Your task to perform on an android device: Search for Mexican restaurants on Maps Image 0: 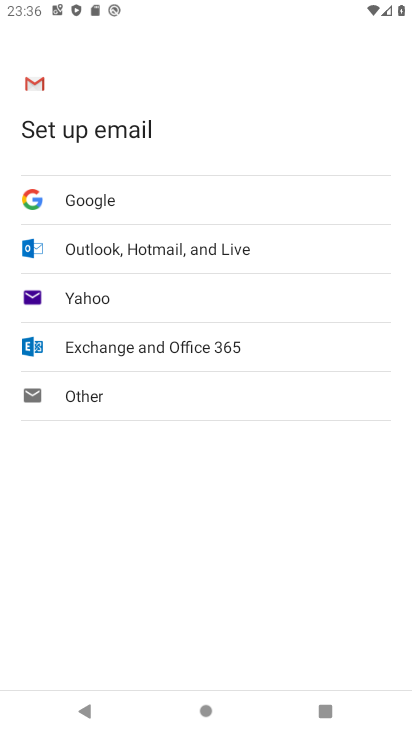
Step 0: press home button
Your task to perform on an android device: Search for Mexican restaurants on Maps Image 1: 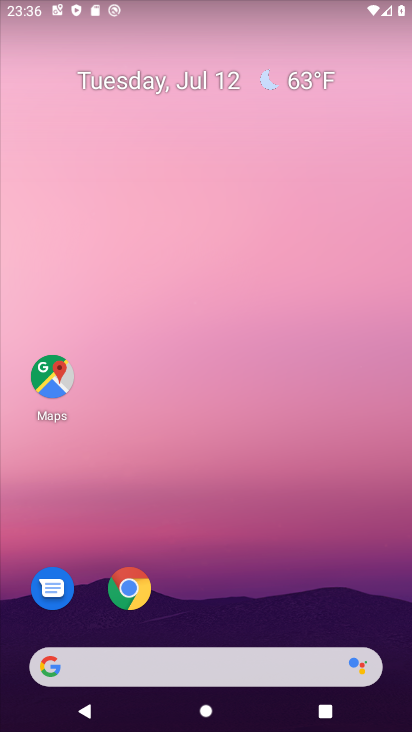
Step 1: click (52, 371)
Your task to perform on an android device: Search for Mexican restaurants on Maps Image 2: 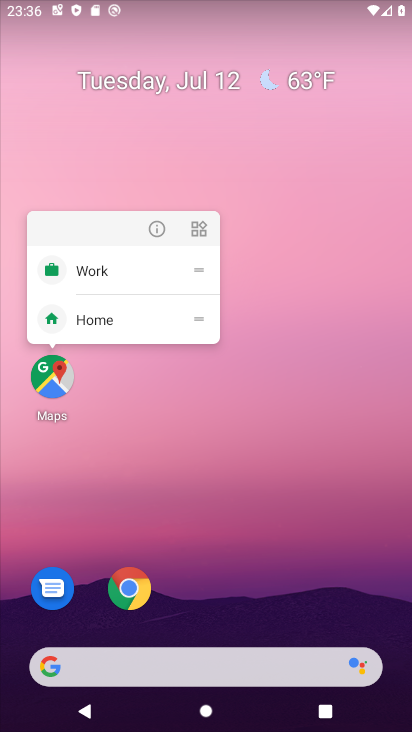
Step 2: click (52, 392)
Your task to perform on an android device: Search for Mexican restaurants on Maps Image 3: 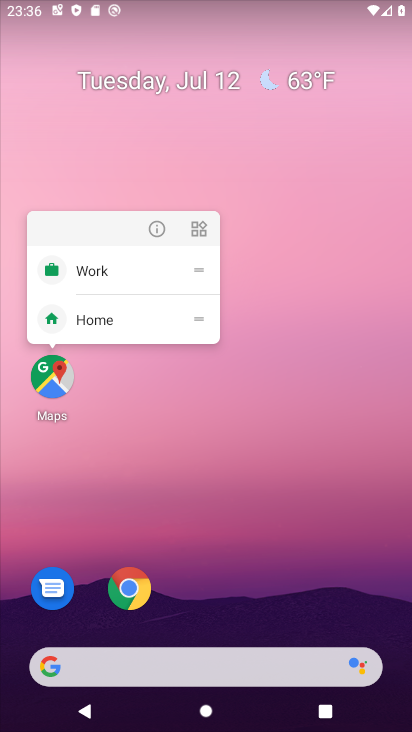
Step 3: click (47, 382)
Your task to perform on an android device: Search for Mexican restaurants on Maps Image 4: 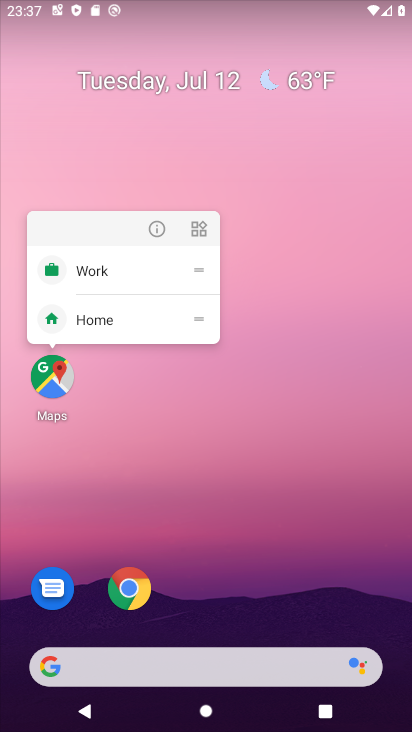
Step 4: click (48, 361)
Your task to perform on an android device: Search for Mexican restaurants on Maps Image 5: 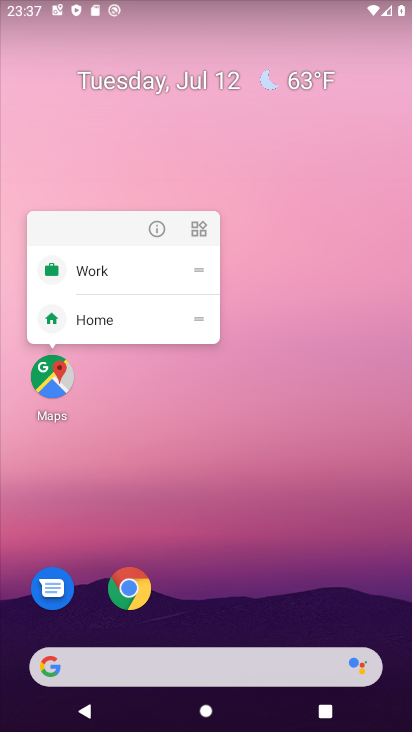
Step 5: click (59, 381)
Your task to perform on an android device: Search for Mexican restaurants on Maps Image 6: 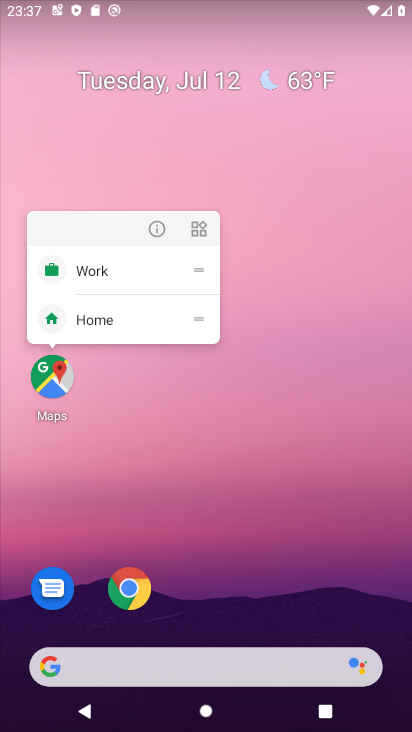
Step 6: click (39, 386)
Your task to perform on an android device: Search for Mexican restaurants on Maps Image 7: 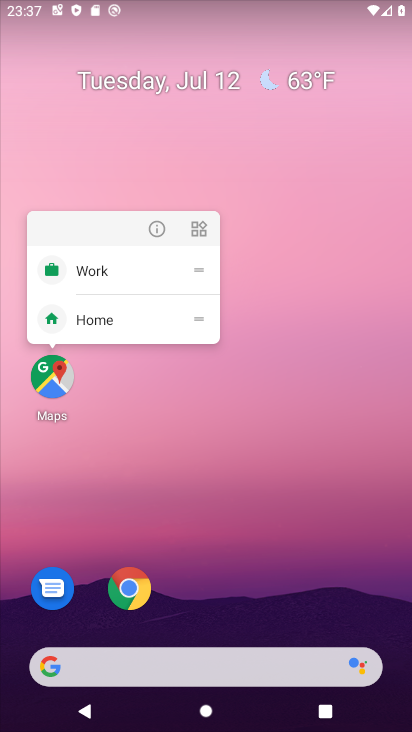
Step 7: click (46, 390)
Your task to perform on an android device: Search for Mexican restaurants on Maps Image 8: 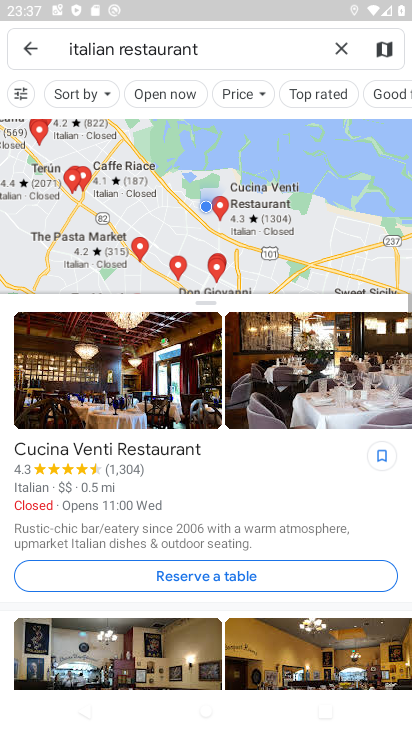
Step 8: click (335, 48)
Your task to perform on an android device: Search for Mexican restaurants on Maps Image 9: 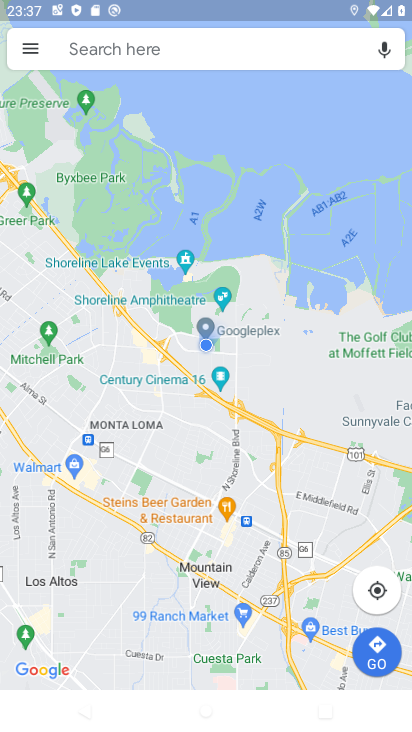
Step 9: click (85, 43)
Your task to perform on an android device: Search for Mexican restaurants on Maps Image 10: 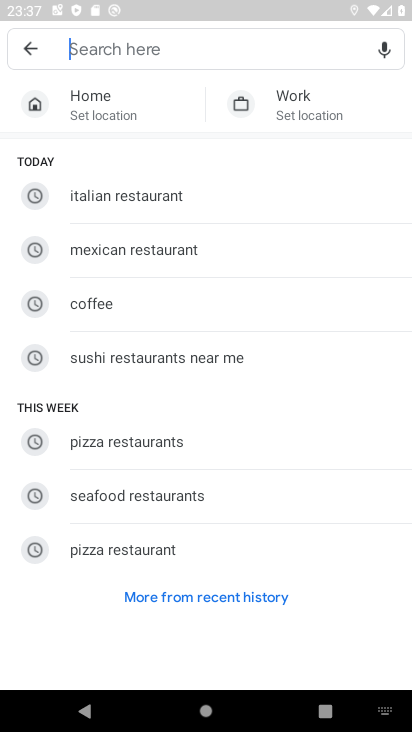
Step 10: click (172, 260)
Your task to perform on an android device: Search for Mexican restaurants on Maps Image 11: 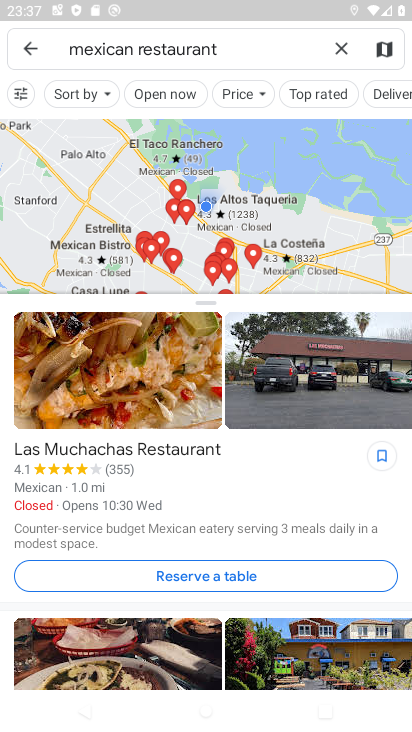
Step 11: task complete